Your task to perform on an android device: turn off wifi Image 0: 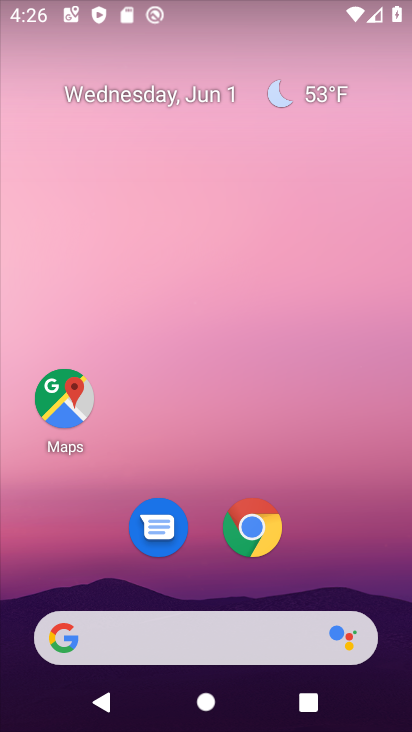
Step 0: drag from (205, 2) to (238, 419)
Your task to perform on an android device: turn off wifi Image 1: 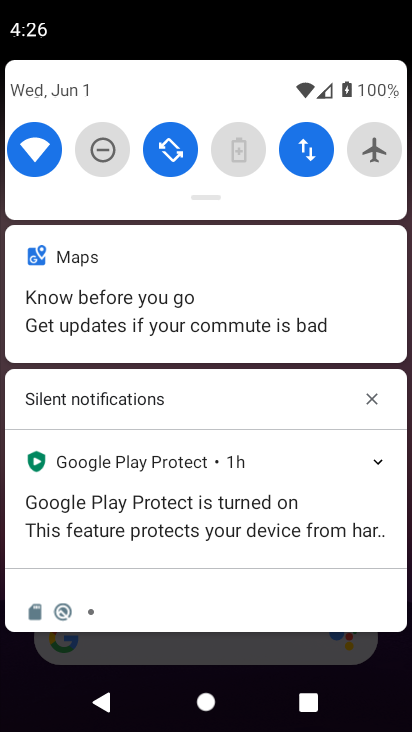
Step 1: click (35, 141)
Your task to perform on an android device: turn off wifi Image 2: 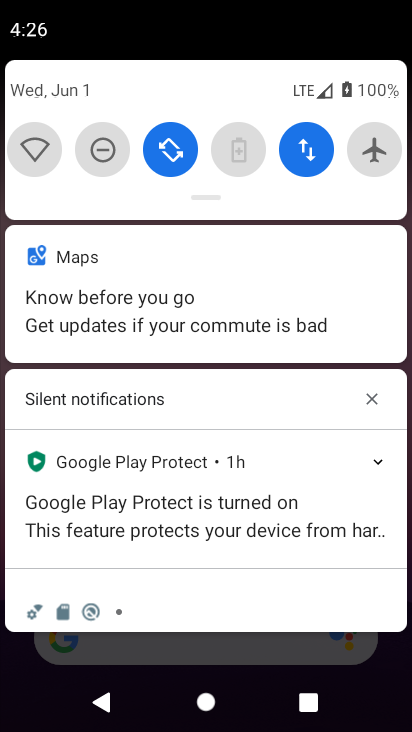
Step 2: task complete